Your task to perform on an android device: change notifications settings Image 0: 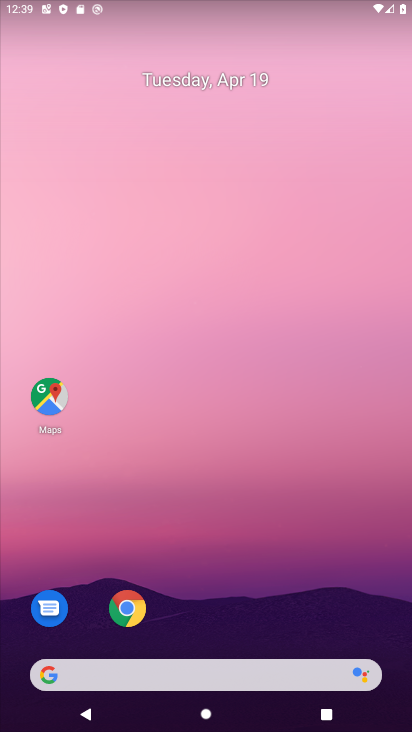
Step 0: drag from (189, 663) to (299, 78)
Your task to perform on an android device: change notifications settings Image 1: 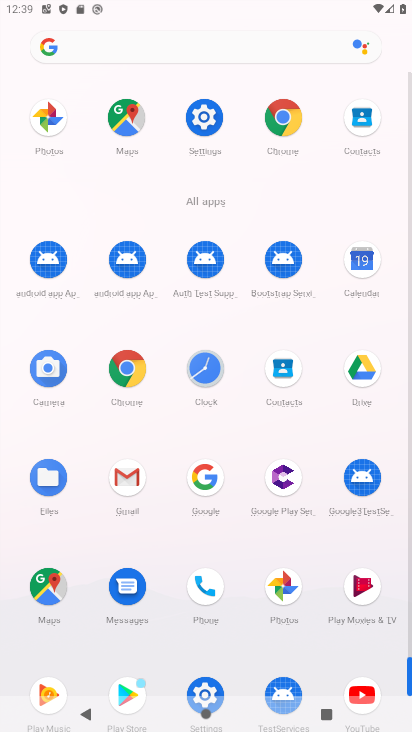
Step 1: click (204, 681)
Your task to perform on an android device: change notifications settings Image 2: 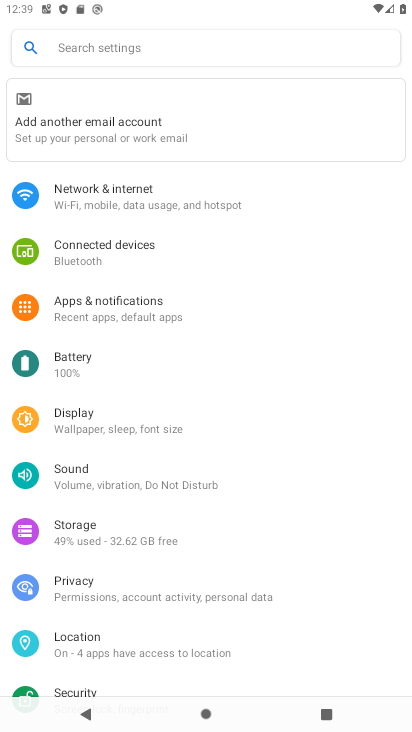
Step 2: click (181, 316)
Your task to perform on an android device: change notifications settings Image 3: 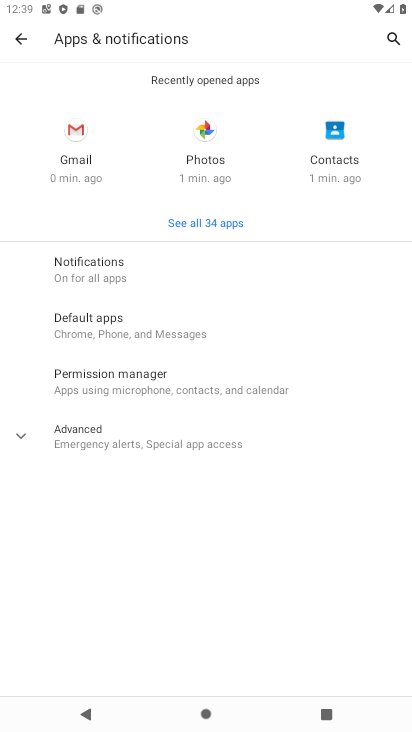
Step 3: click (187, 278)
Your task to perform on an android device: change notifications settings Image 4: 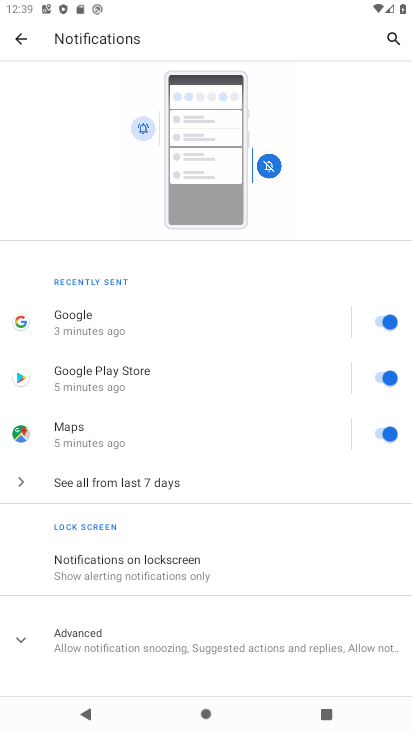
Step 4: drag from (182, 650) to (294, 364)
Your task to perform on an android device: change notifications settings Image 5: 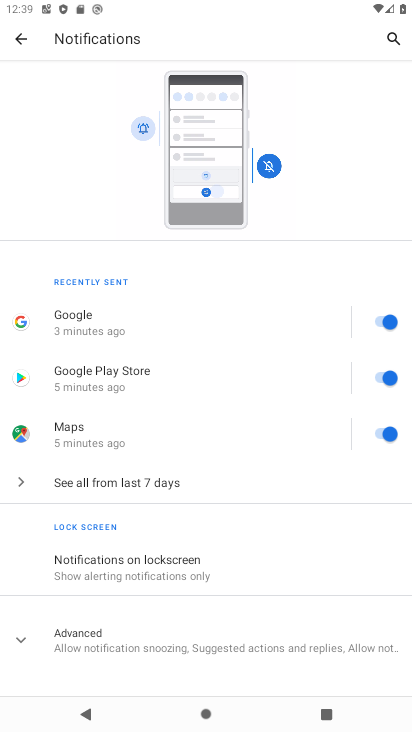
Step 5: click (176, 645)
Your task to perform on an android device: change notifications settings Image 6: 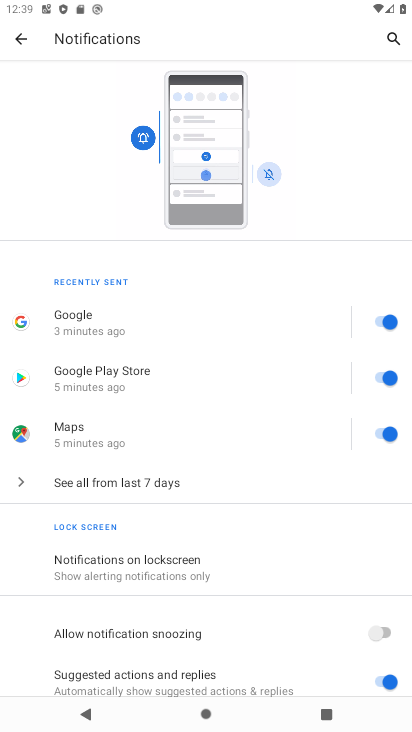
Step 6: drag from (198, 641) to (283, 344)
Your task to perform on an android device: change notifications settings Image 7: 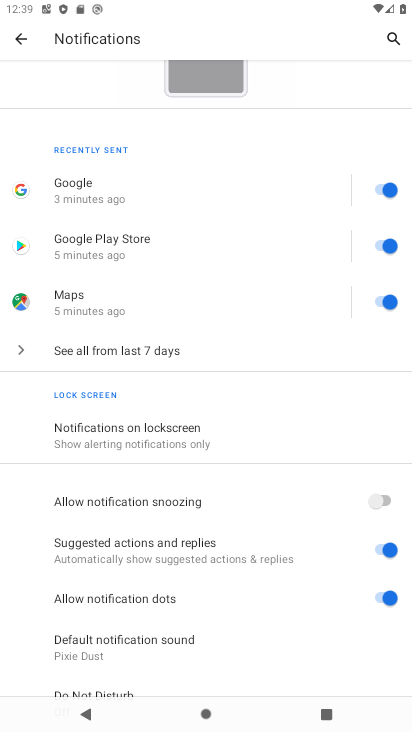
Step 7: drag from (194, 668) to (315, 411)
Your task to perform on an android device: change notifications settings Image 8: 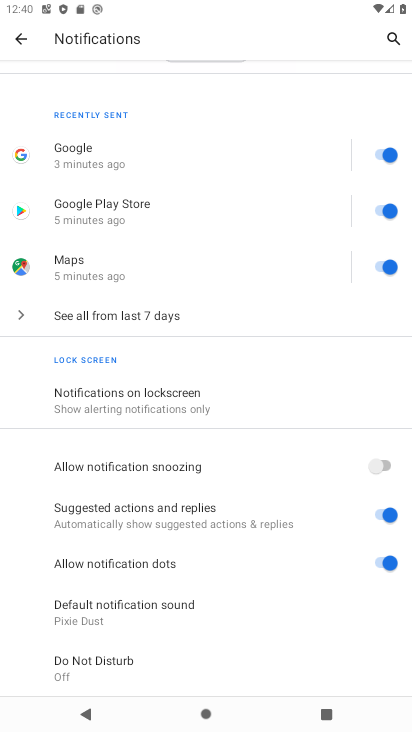
Step 8: click (225, 597)
Your task to perform on an android device: change notifications settings Image 9: 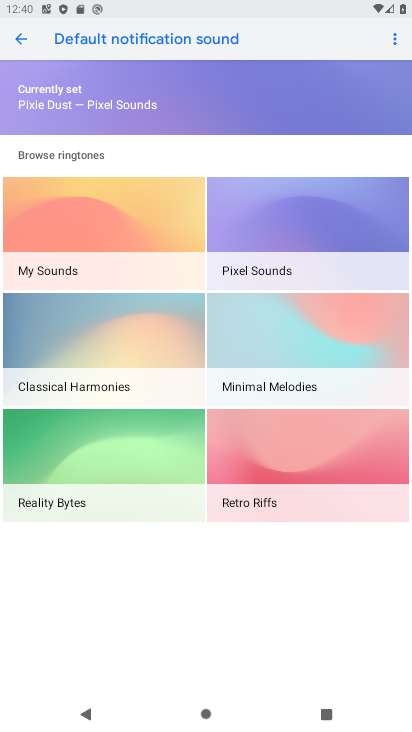
Step 9: click (115, 463)
Your task to perform on an android device: change notifications settings Image 10: 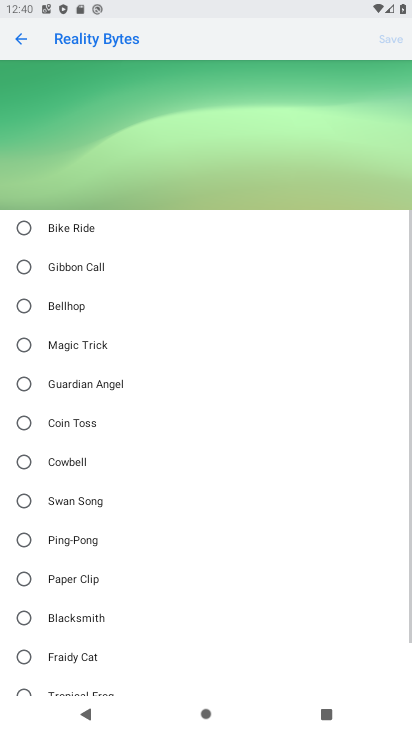
Step 10: click (137, 513)
Your task to perform on an android device: change notifications settings Image 11: 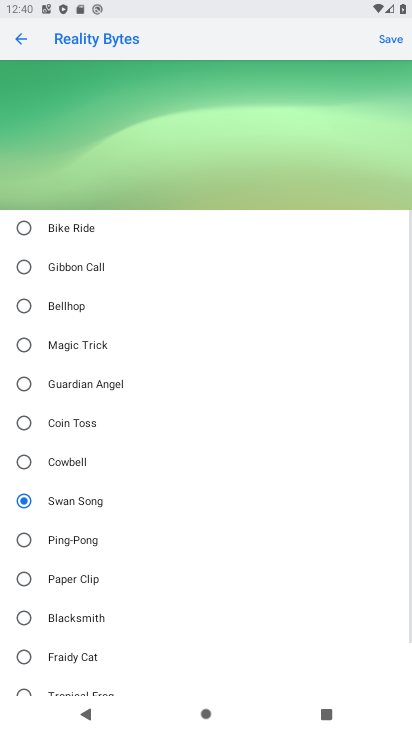
Step 11: click (382, 48)
Your task to perform on an android device: change notifications settings Image 12: 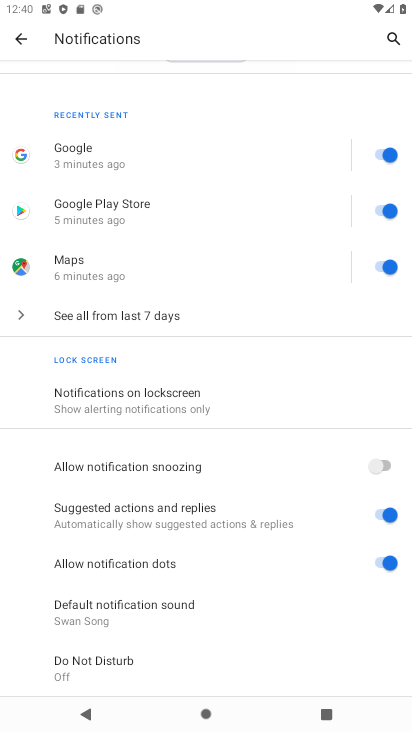
Step 12: click (390, 461)
Your task to perform on an android device: change notifications settings Image 13: 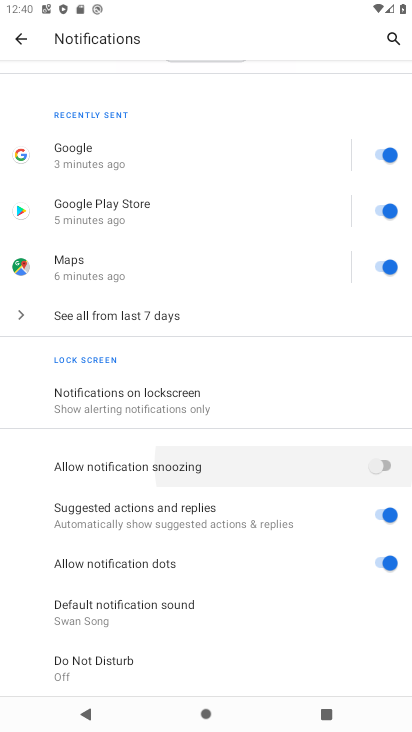
Step 13: click (382, 513)
Your task to perform on an android device: change notifications settings Image 14: 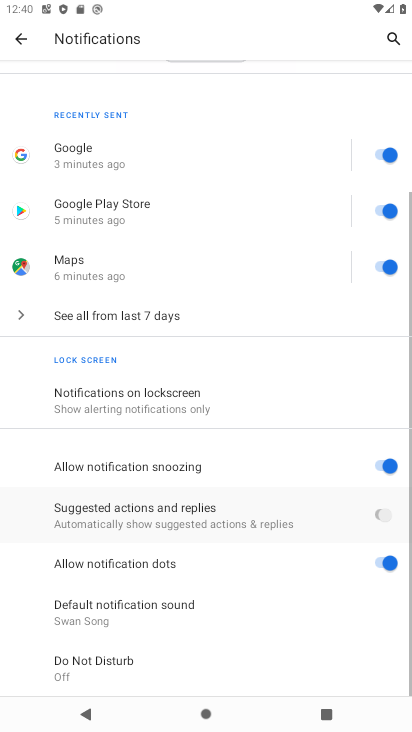
Step 14: click (383, 566)
Your task to perform on an android device: change notifications settings Image 15: 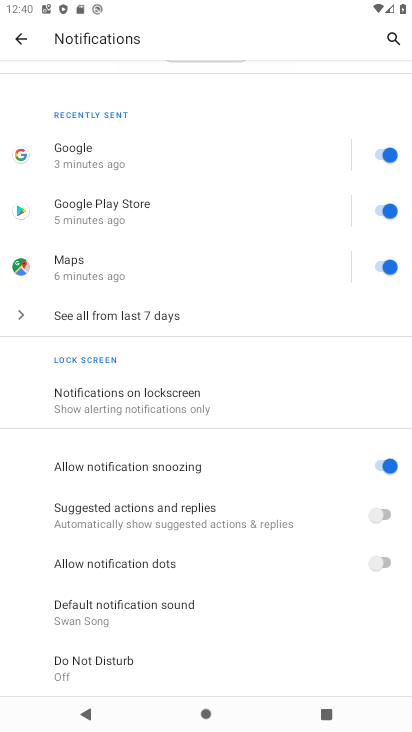
Step 15: task complete